Your task to perform on an android device: Play the last video I watched on Youtube Image 0: 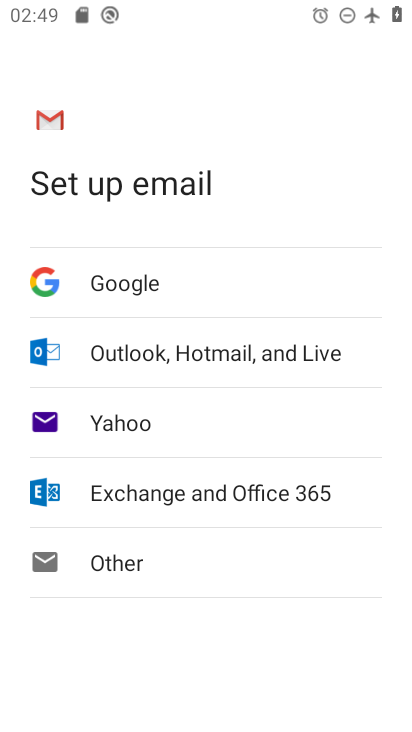
Step 0: press home button
Your task to perform on an android device: Play the last video I watched on Youtube Image 1: 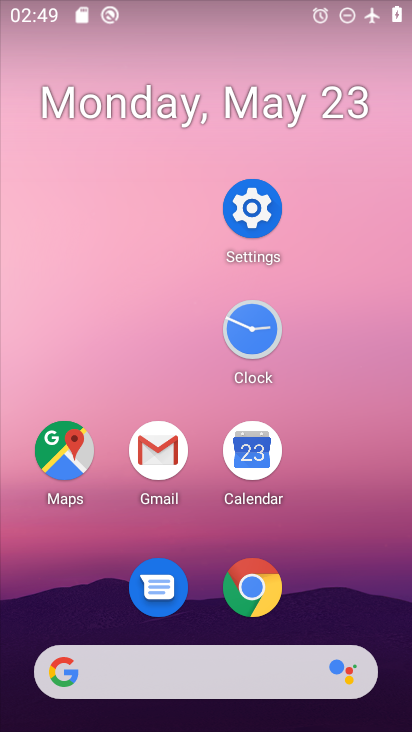
Step 1: drag from (369, 541) to (318, 183)
Your task to perform on an android device: Play the last video I watched on Youtube Image 2: 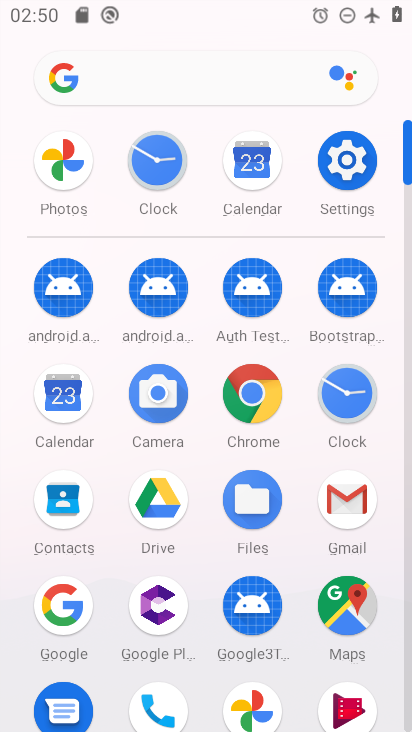
Step 2: click (406, 723)
Your task to perform on an android device: Play the last video I watched on Youtube Image 3: 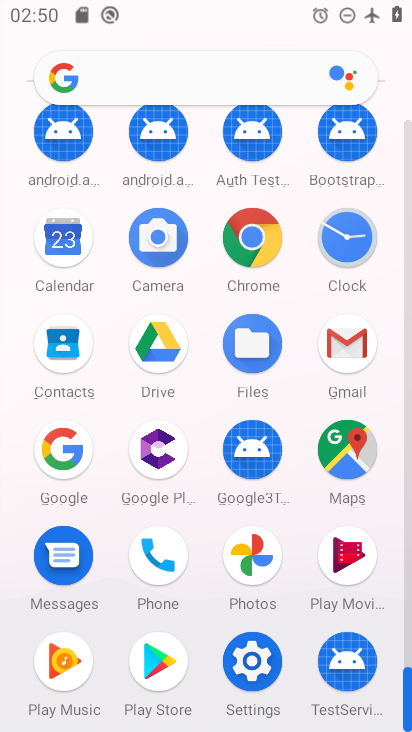
Step 3: drag from (407, 677) to (160, 727)
Your task to perform on an android device: Play the last video I watched on Youtube Image 4: 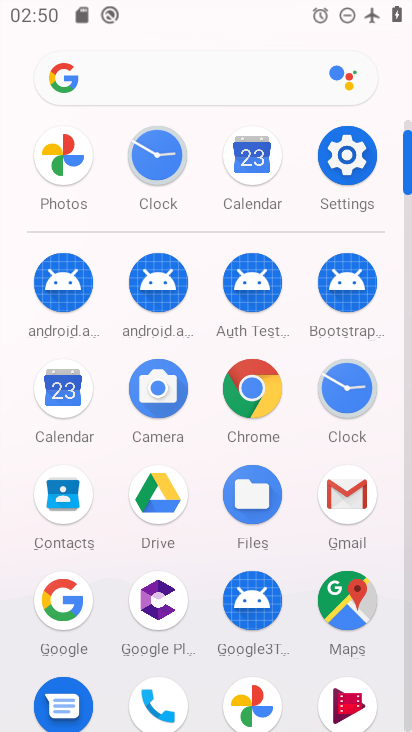
Step 4: click (69, 684)
Your task to perform on an android device: Play the last video I watched on Youtube Image 5: 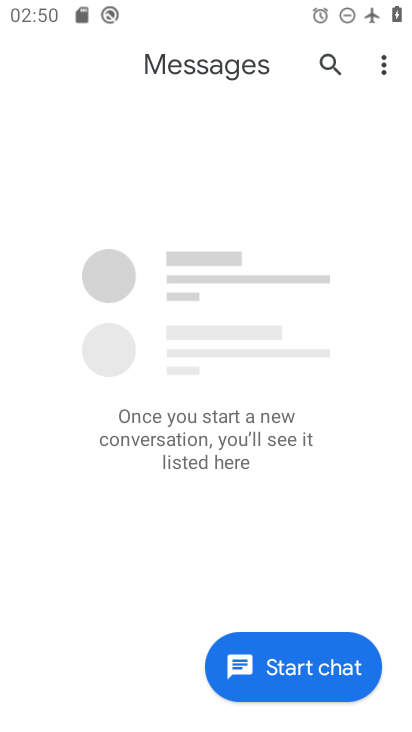
Step 5: press home button
Your task to perform on an android device: Play the last video I watched on Youtube Image 6: 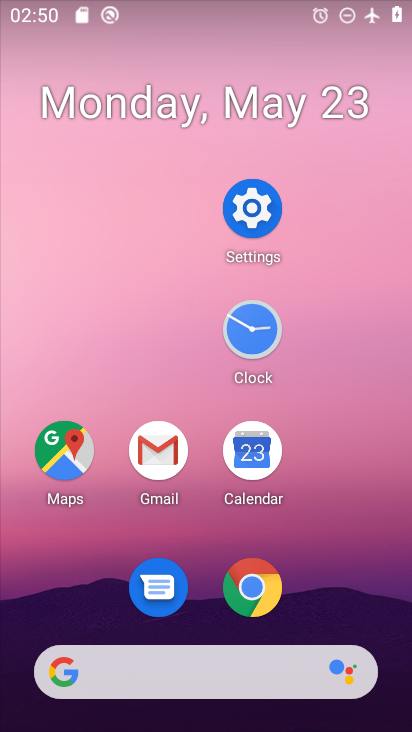
Step 6: drag from (404, 598) to (299, 17)
Your task to perform on an android device: Play the last video I watched on Youtube Image 7: 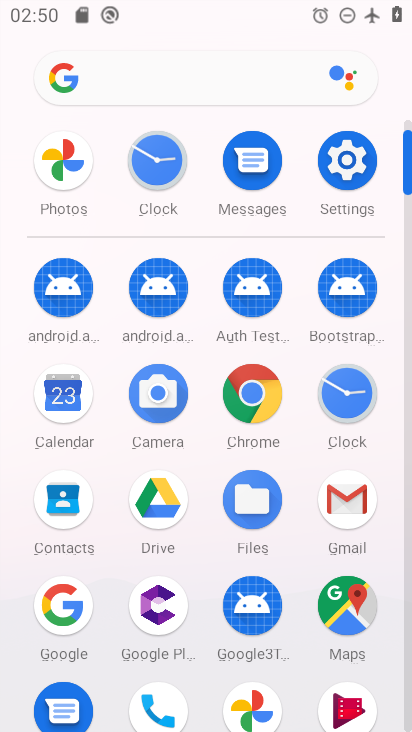
Step 7: click (405, 718)
Your task to perform on an android device: Play the last video I watched on Youtube Image 8: 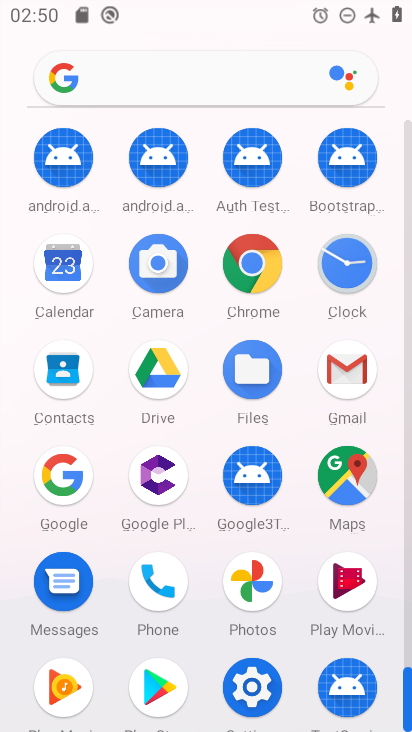
Step 8: click (408, 713)
Your task to perform on an android device: Play the last video I watched on Youtube Image 9: 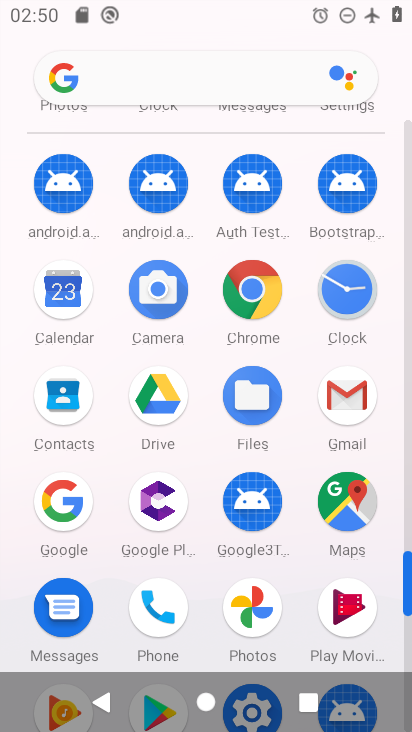
Step 9: drag from (409, 608) to (405, 717)
Your task to perform on an android device: Play the last video I watched on Youtube Image 10: 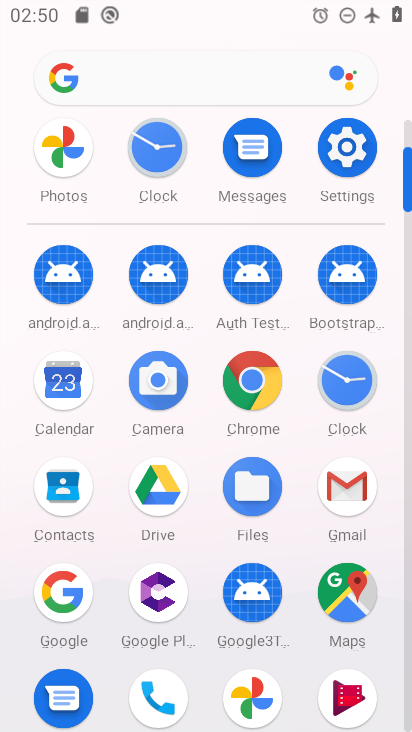
Step 10: click (408, 708)
Your task to perform on an android device: Play the last video I watched on Youtube Image 11: 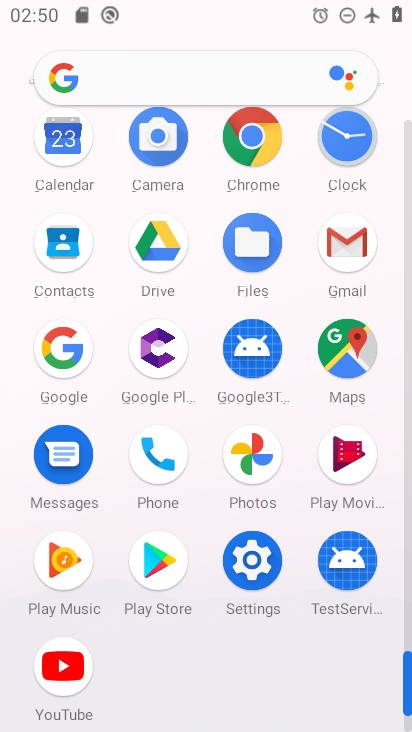
Step 11: click (85, 673)
Your task to perform on an android device: Play the last video I watched on Youtube Image 12: 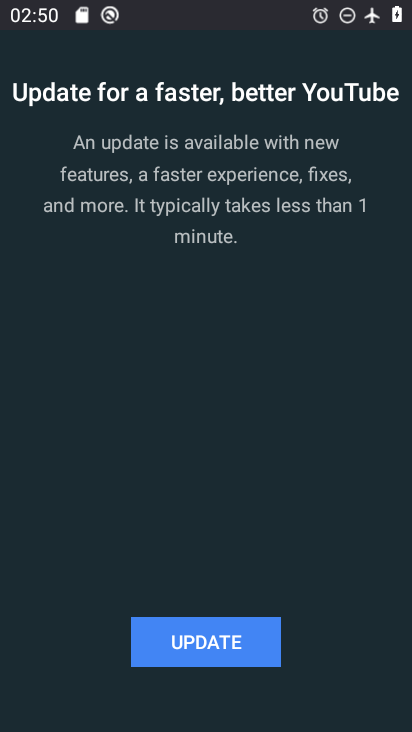
Step 12: click (158, 678)
Your task to perform on an android device: Play the last video I watched on Youtube Image 13: 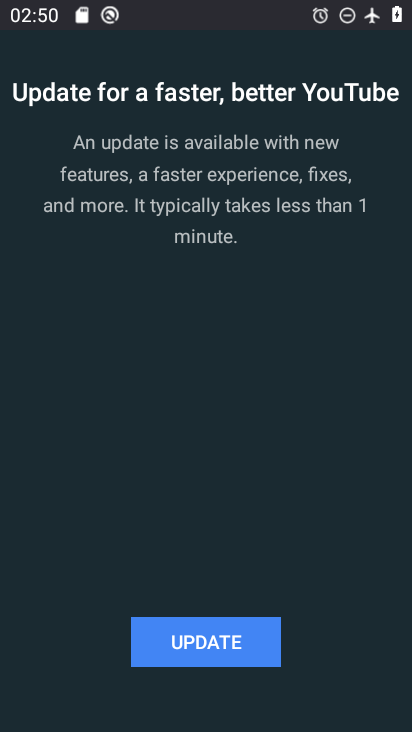
Step 13: click (181, 661)
Your task to perform on an android device: Play the last video I watched on Youtube Image 14: 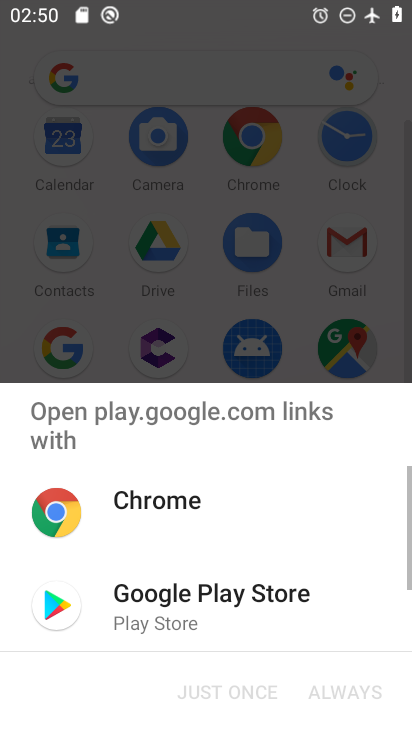
Step 14: click (167, 604)
Your task to perform on an android device: Play the last video I watched on Youtube Image 15: 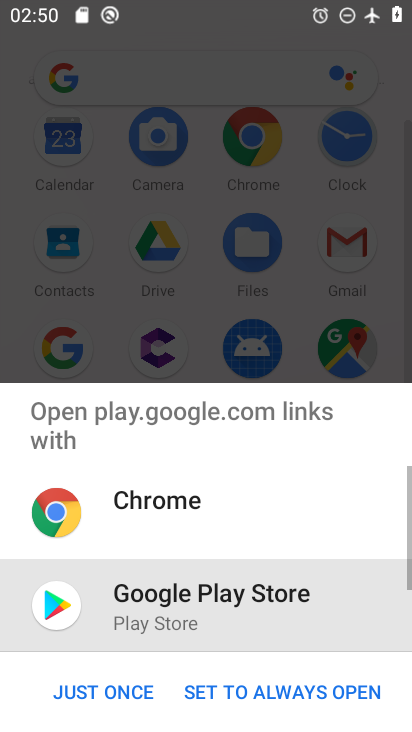
Step 15: click (108, 695)
Your task to perform on an android device: Play the last video I watched on Youtube Image 16: 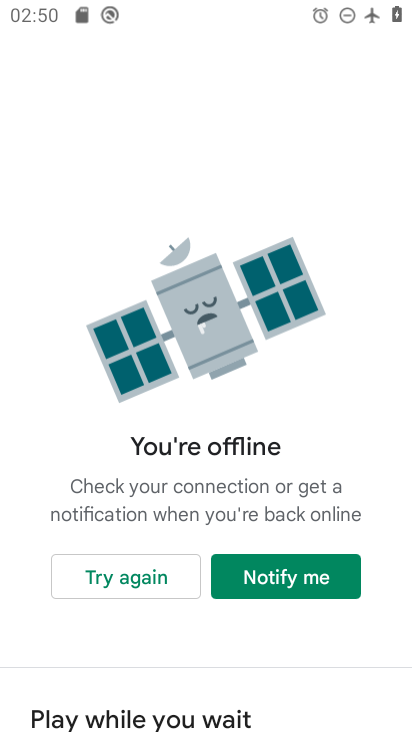
Step 16: click (247, 572)
Your task to perform on an android device: Play the last video I watched on Youtube Image 17: 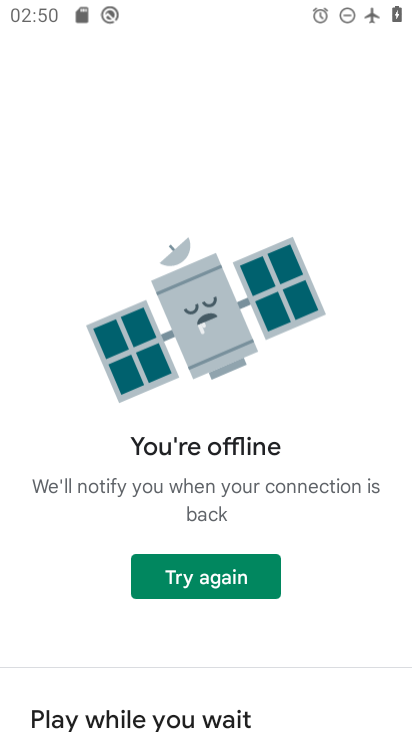
Step 17: task complete